Your task to perform on an android device: Open settings on Google Maps Image 0: 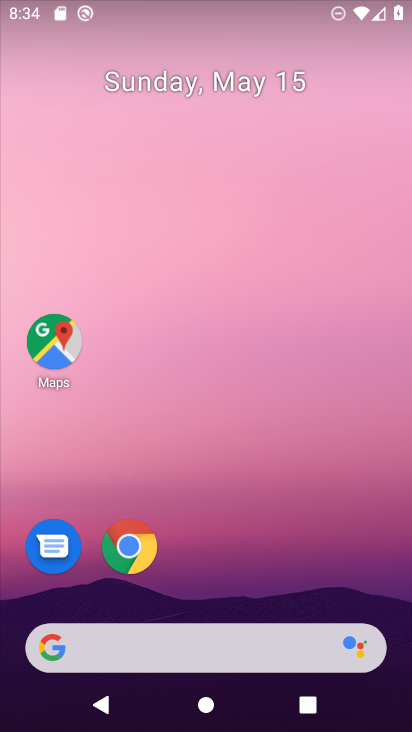
Step 0: click (49, 351)
Your task to perform on an android device: Open settings on Google Maps Image 1: 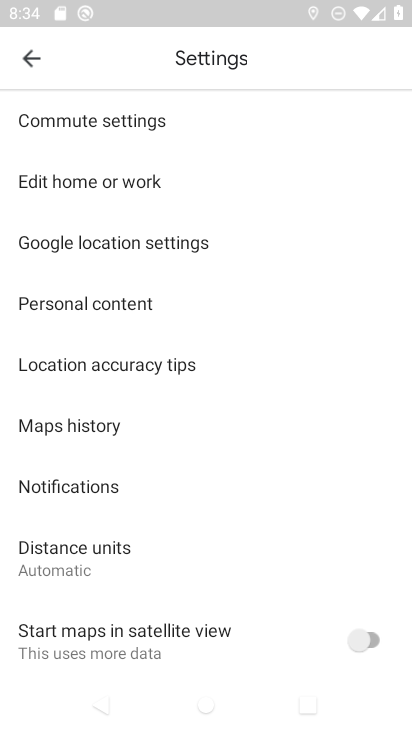
Step 1: task complete